Your task to perform on an android device: check out phone information Image 0: 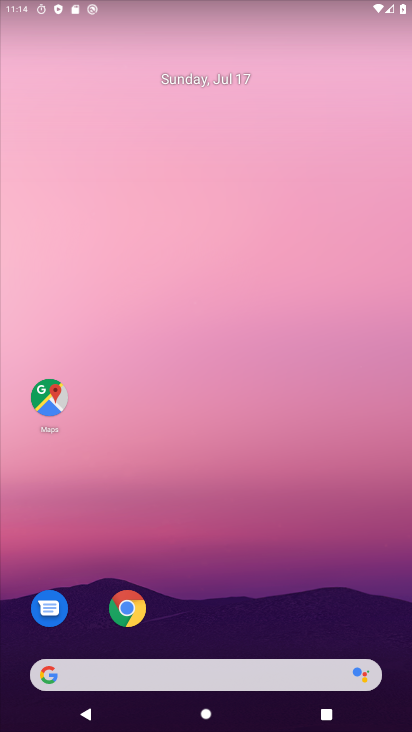
Step 0: drag from (271, 616) to (312, 10)
Your task to perform on an android device: check out phone information Image 1: 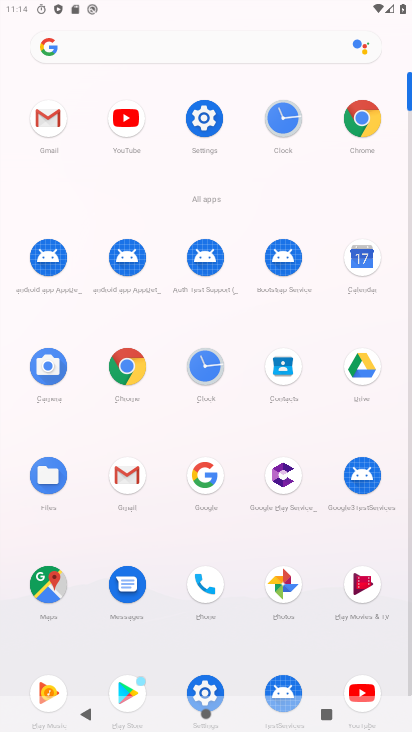
Step 1: click (203, 127)
Your task to perform on an android device: check out phone information Image 2: 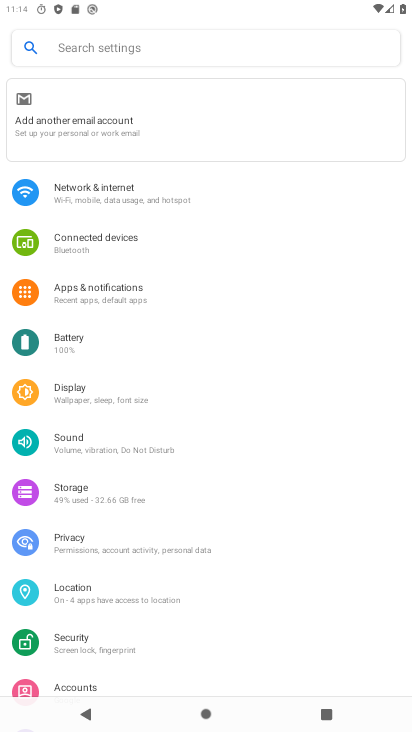
Step 2: drag from (135, 643) to (168, 202)
Your task to perform on an android device: check out phone information Image 3: 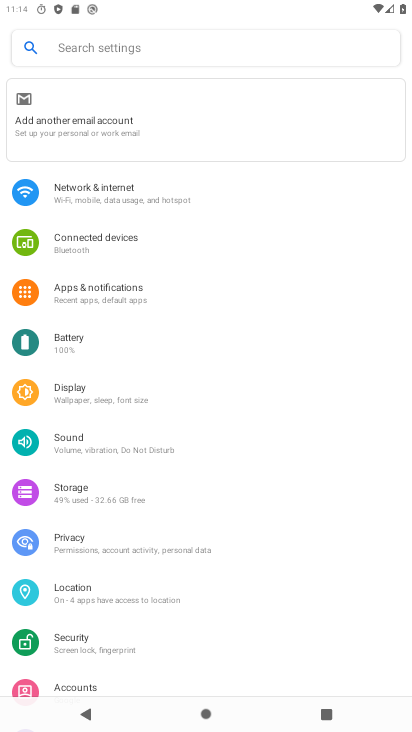
Step 3: drag from (171, 669) to (170, 255)
Your task to perform on an android device: check out phone information Image 4: 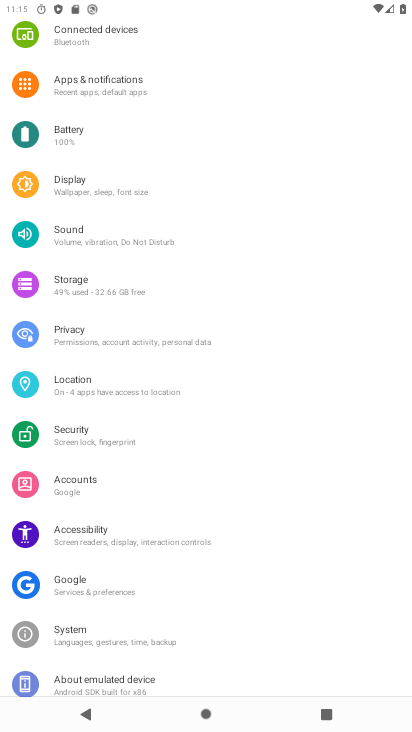
Step 4: click (163, 678)
Your task to perform on an android device: check out phone information Image 5: 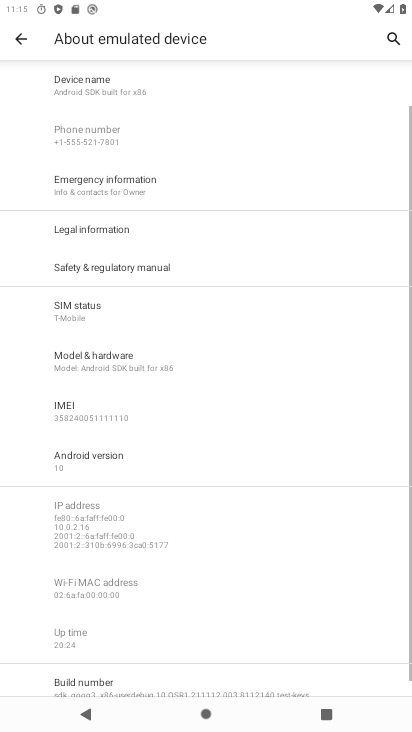
Step 5: task complete